Your task to perform on an android device: Open Google Chrome Image 0: 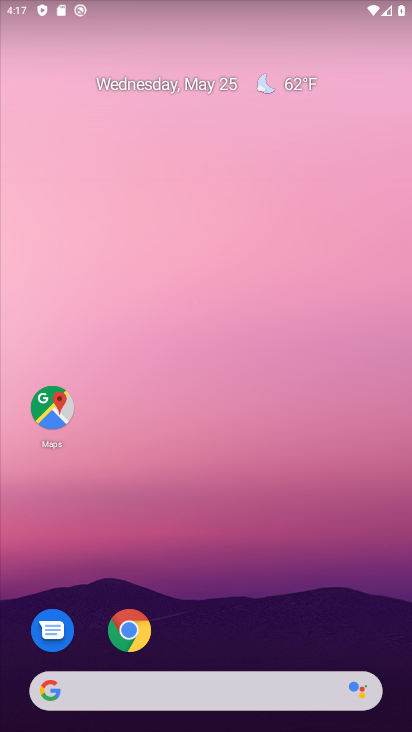
Step 0: click (129, 633)
Your task to perform on an android device: Open Google Chrome Image 1: 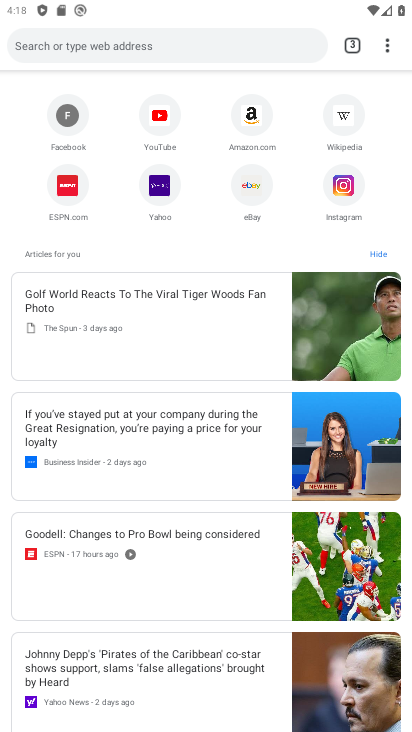
Step 1: task complete